Your task to perform on an android device: uninstall "Expedia: Hotels, Flights & Car" Image 0: 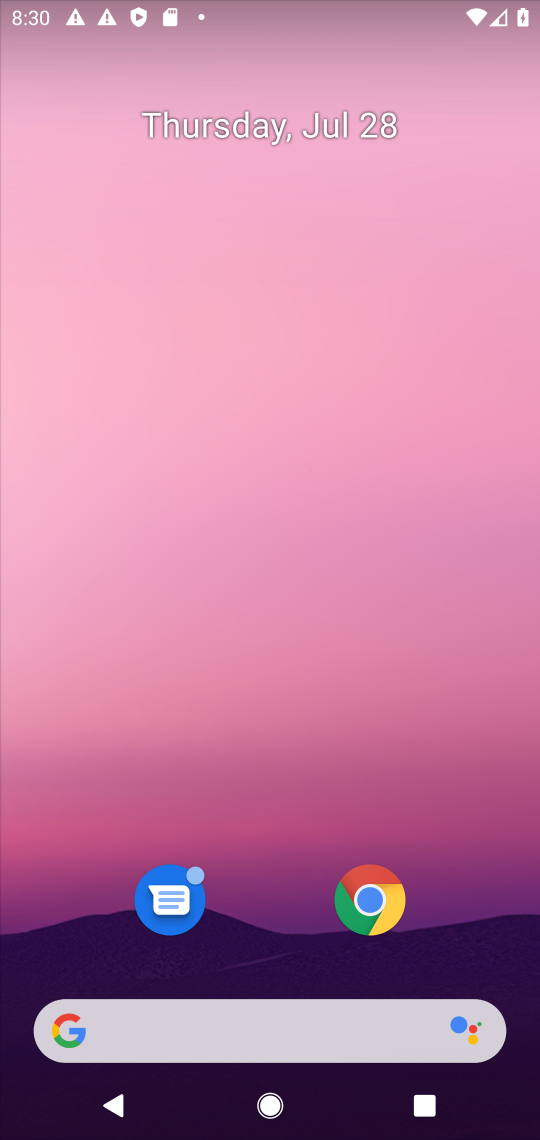
Step 0: drag from (276, 724) to (308, 238)
Your task to perform on an android device: uninstall "Expedia: Hotels, Flights & Car" Image 1: 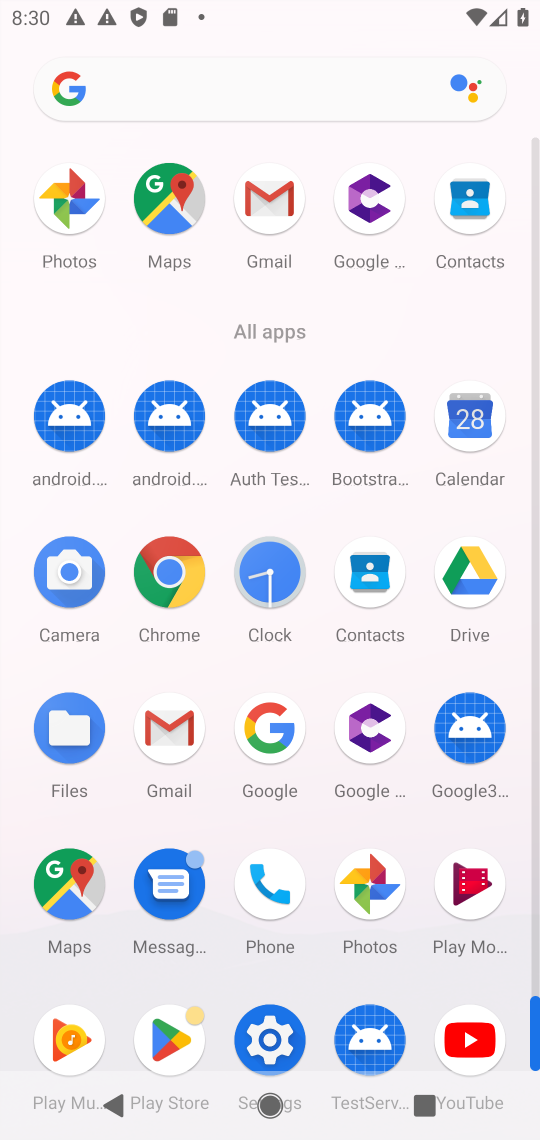
Step 1: task complete